Your task to perform on an android device: Is it going to rain today? Image 0: 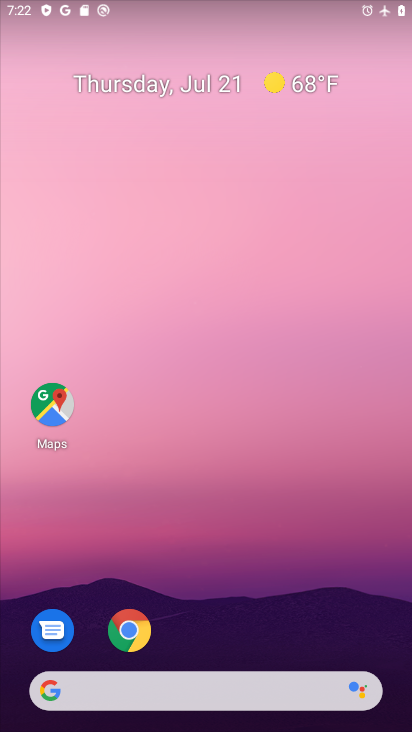
Step 0: drag from (300, 538) to (290, 0)
Your task to perform on an android device: Is it going to rain today? Image 1: 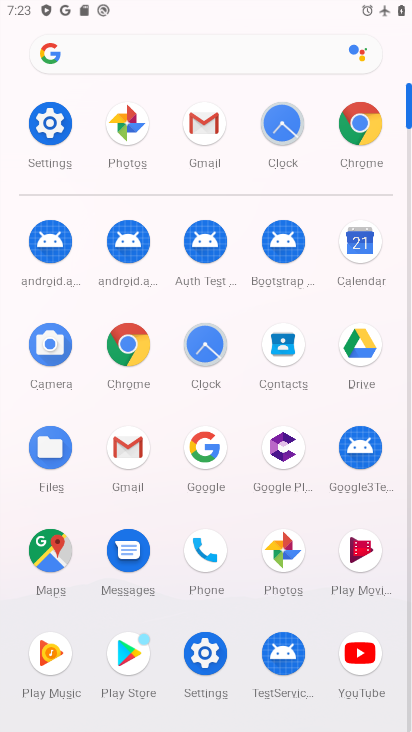
Step 1: click (220, 444)
Your task to perform on an android device: Is it going to rain today? Image 2: 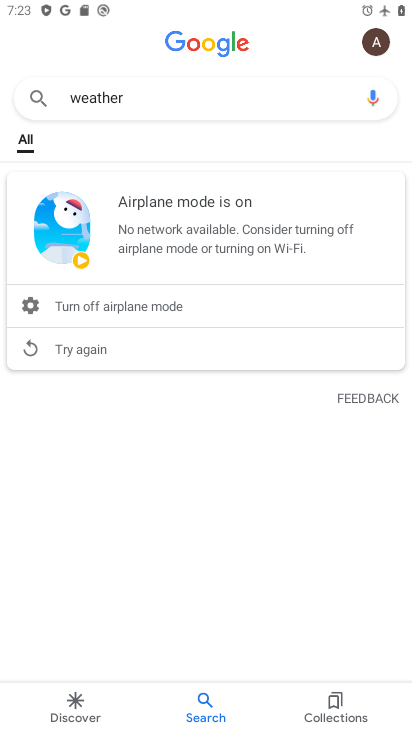
Step 2: task complete